Your task to perform on an android device: turn off sleep mode Image 0: 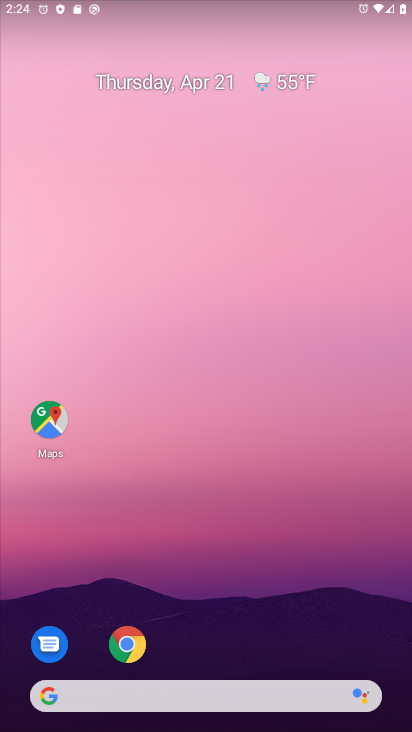
Step 0: drag from (333, 608) to (338, 104)
Your task to perform on an android device: turn off sleep mode Image 1: 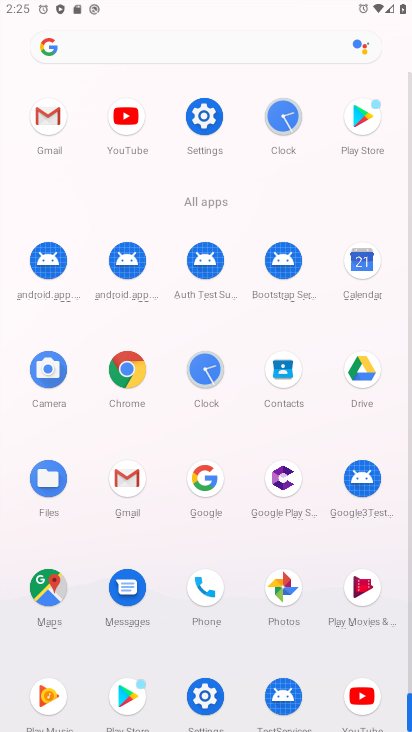
Step 1: drag from (278, 5) to (245, 470)
Your task to perform on an android device: turn off sleep mode Image 2: 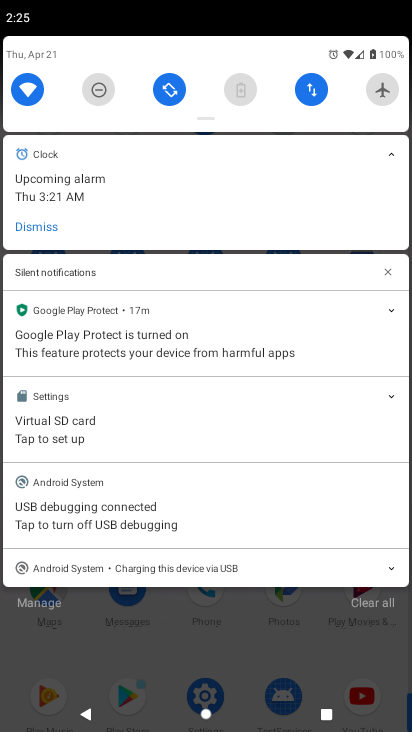
Step 2: drag from (208, 113) to (261, 522)
Your task to perform on an android device: turn off sleep mode Image 3: 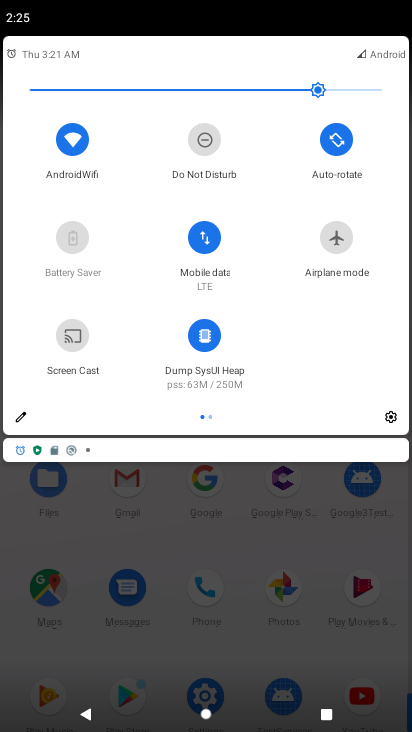
Step 3: click (25, 416)
Your task to perform on an android device: turn off sleep mode Image 4: 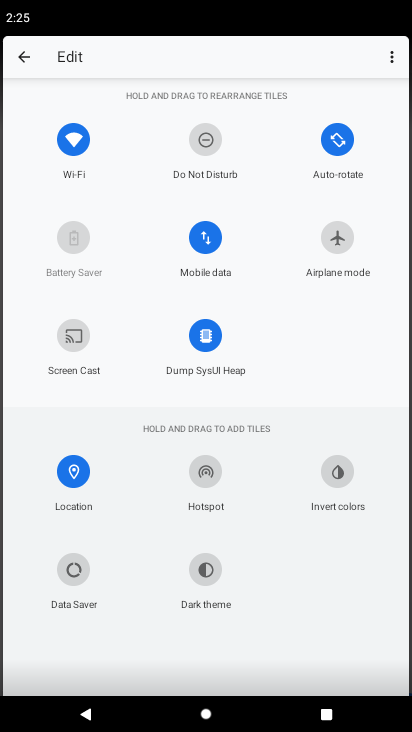
Step 4: task complete